Your task to perform on an android device: Search for "macbook pro 13 inch" on costco.com, select the first entry, add it to the cart, then select checkout. Image 0: 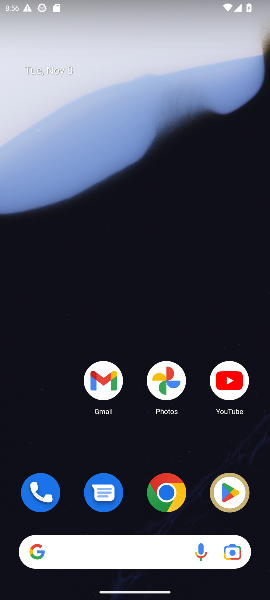
Step 0: click (171, 495)
Your task to perform on an android device: Search for "macbook pro 13 inch" on costco.com, select the first entry, add it to the cart, then select checkout. Image 1: 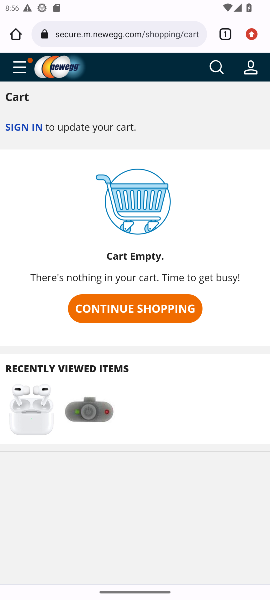
Step 1: click (180, 28)
Your task to perform on an android device: Search for "macbook pro 13 inch" on costco.com, select the first entry, add it to the cart, then select checkout. Image 2: 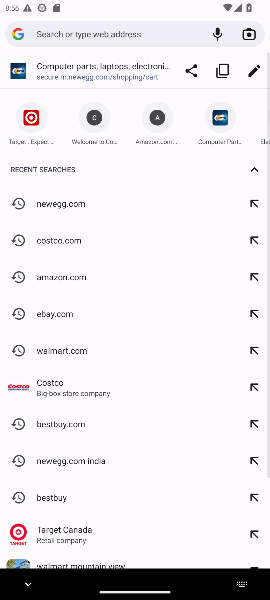
Step 2: click (68, 239)
Your task to perform on an android device: Search for "macbook pro 13 inch" on costco.com, select the first entry, add it to the cart, then select checkout. Image 3: 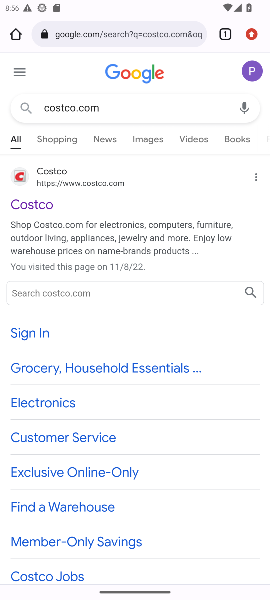
Step 3: click (99, 180)
Your task to perform on an android device: Search for "macbook pro 13 inch" on costco.com, select the first entry, add it to the cart, then select checkout. Image 4: 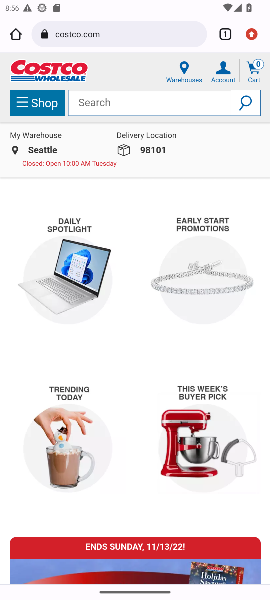
Step 4: click (128, 100)
Your task to perform on an android device: Search for "macbook pro 13 inch" on costco.com, select the first entry, add it to the cart, then select checkout. Image 5: 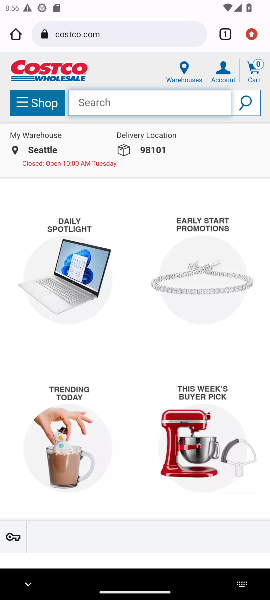
Step 5: type "macbook pro 13 inch"
Your task to perform on an android device: Search for "macbook pro 13 inch" on costco.com, select the first entry, add it to the cart, then select checkout. Image 6: 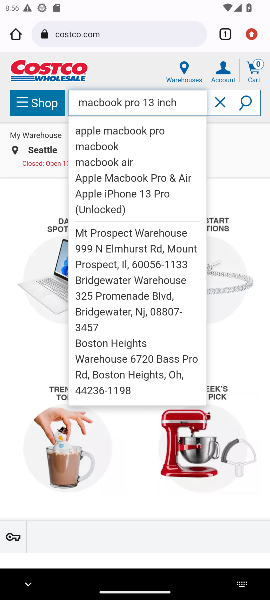
Step 6: click (233, 161)
Your task to perform on an android device: Search for "macbook pro 13 inch" on costco.com, select the first entry, add it to the cart, then select checkout. Image 7: 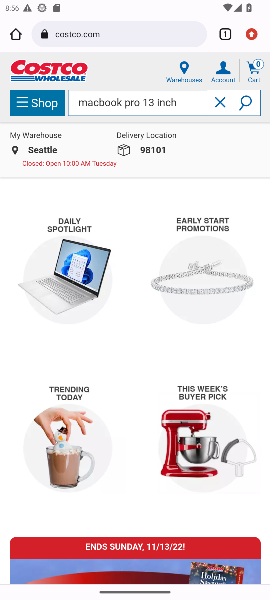
Step 7: task complete